Your task to perform on an android device: open sync settings in chrome Image 0: 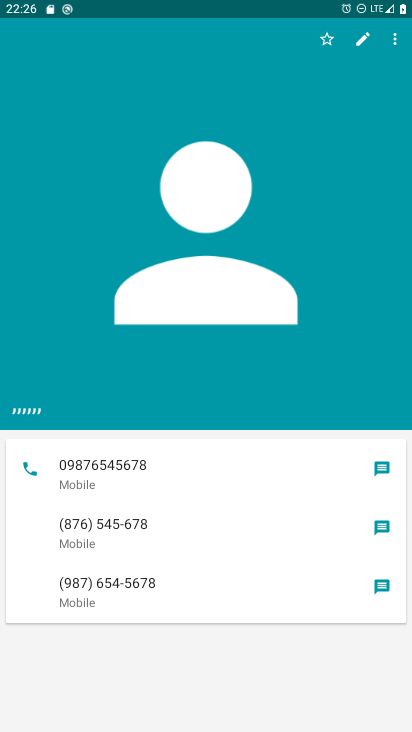
Step 0: press home button
Your task to perform on an android device: open sync settings in chrome Image 1: 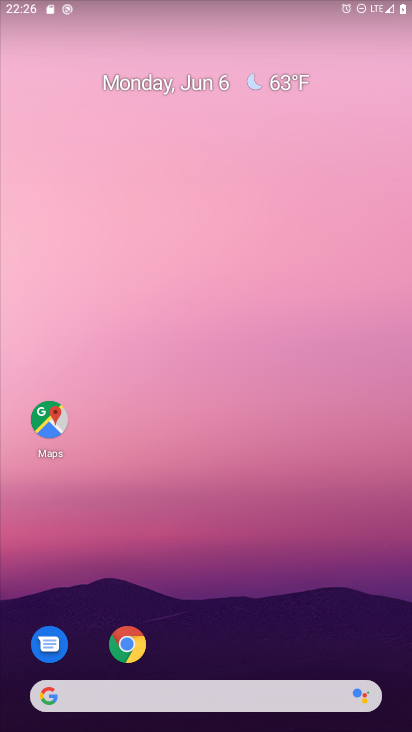
Step 1: drag from (201, 710) to (124, 236)
Your task to perform on an android device: open sync settings in chrome Image 2: 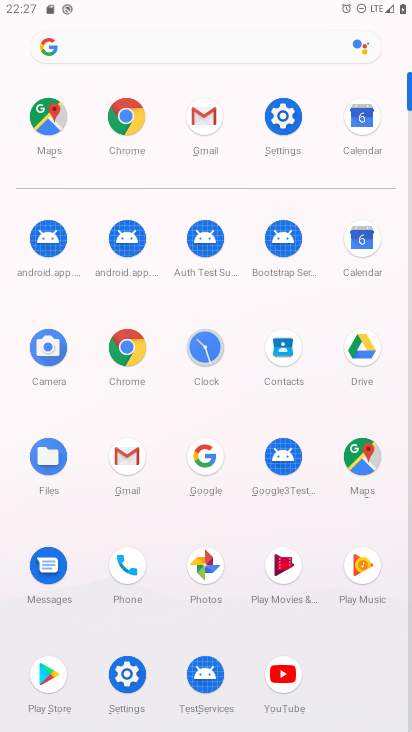
Step 2: click (133, 111)
Your task to perform on an android device: open sync settings in chrome Image 3: 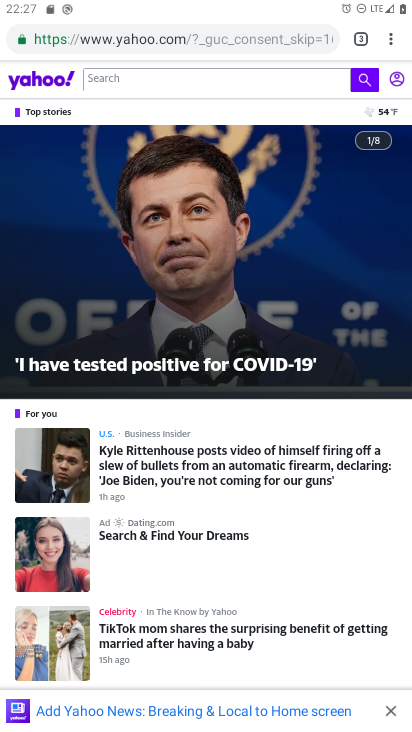
Step 3: click (386, 40)
Your task to perform on an android device: open sync settings in chrome Image 4: 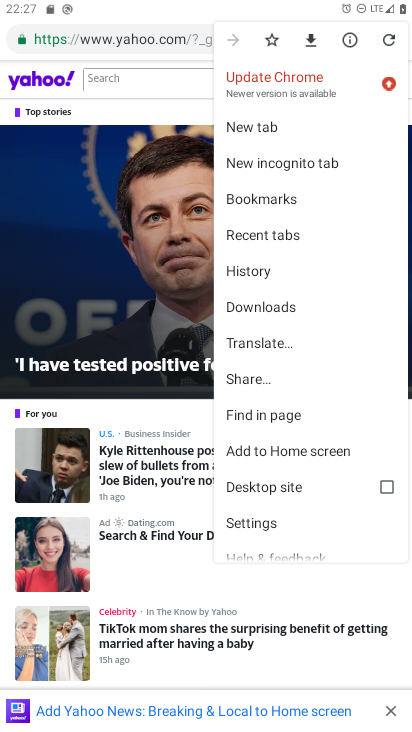
Step 4: click (259, 518)
Your task to perform on an android device: open sync settings in chrome Image 5: 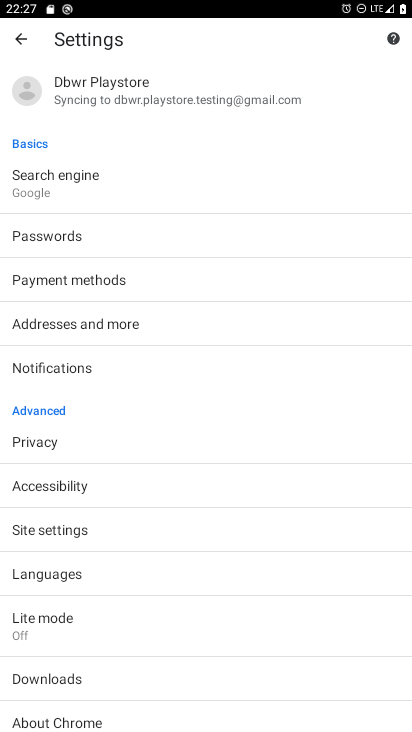
Step 5: click (94, 534)
Your task to perform on an android device: open sync settings in chrome Image 6: 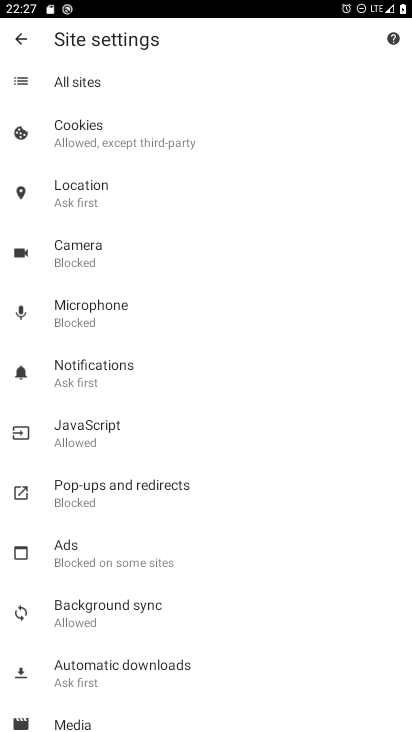
Step 6: click (87, 598)
Your task to perform on an android device: open sync settings in chrome Image 7: 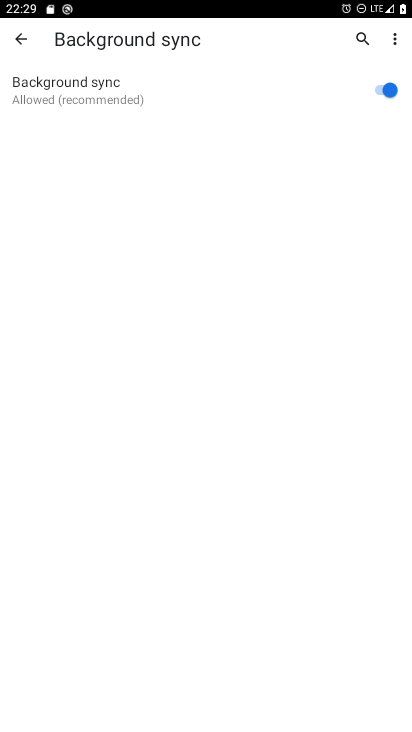
Step 7: task complete